Your task to perform on an android device: Search for the best rated vacuums on Target Image 0: 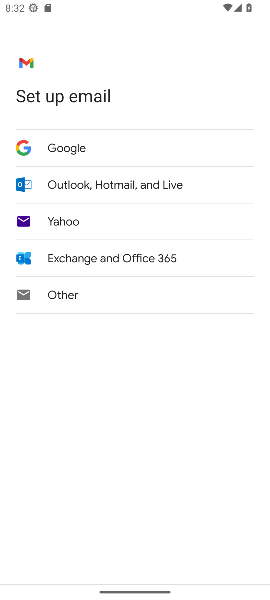
Step 0: press home button
Your task to perform on an android device: Search for the best rated vacuums on Target Image 1: 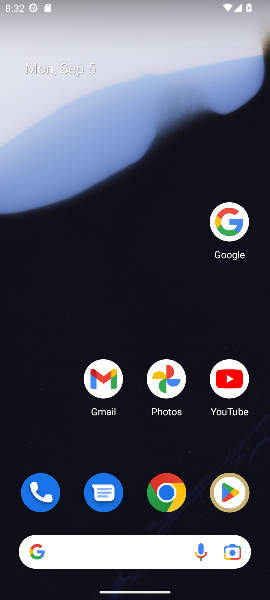
Step 1: click (229, 208)
Your task to perform on an android device: Search for the best rated vacuums on Target Image 2: 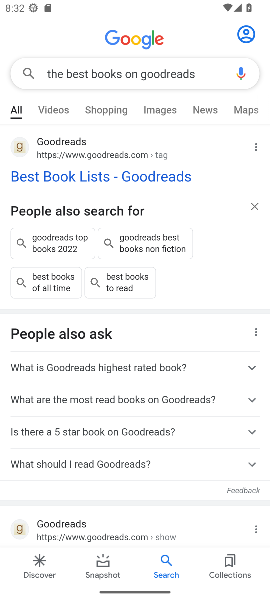
Step 2: click (163, 73)
Your task to perform on an android device: Search for the best rated vacuums on Target Image 3: 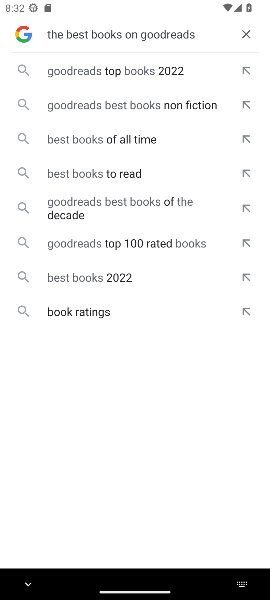
Step 3: click (248, 37)
Your task to perform on an android device: Search for the best rated vacuums on Target Image 4: 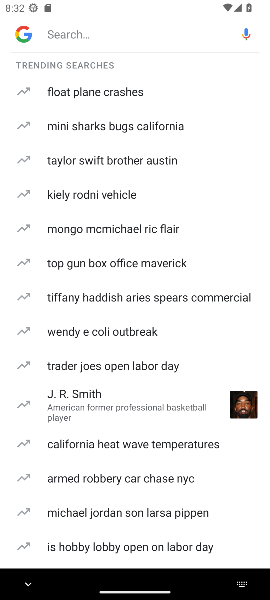
Step 4: click (118, 36)
Your task to perform on an android device: Search for the best rated vacuums on Target Image 5: 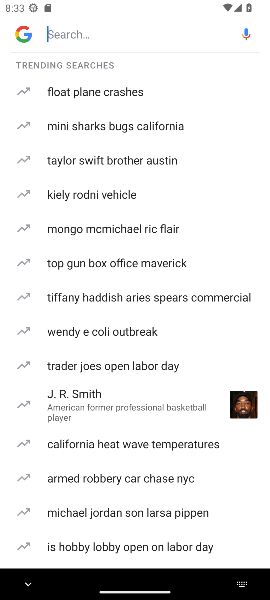
Step 5: type "the best rated vacuums on Target "
Your task to perform on an android device: Search for the best rated vacuums on Target Image 6: 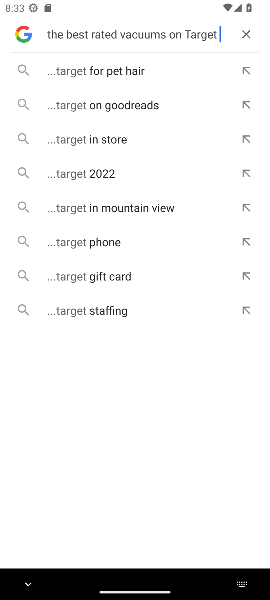
Step 6: click (248, 36)
Your task to perform on an android device: Search for the best rated vacuums on Target Image 7: 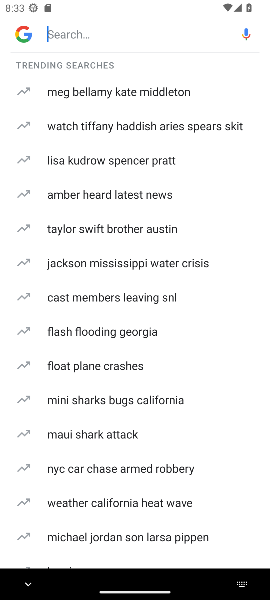
Step 7: click (101, 30)
Your task to perform on an android device: Search for the best rated vacuums on Target Image 8: 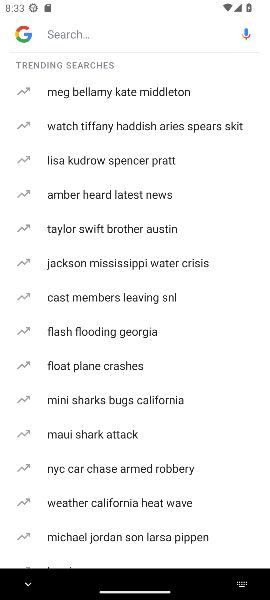
Step 8: type " the best rated vacuums on Target "
Your task to perform on an android device: Search for the best rated vacuums on Target Image 9: 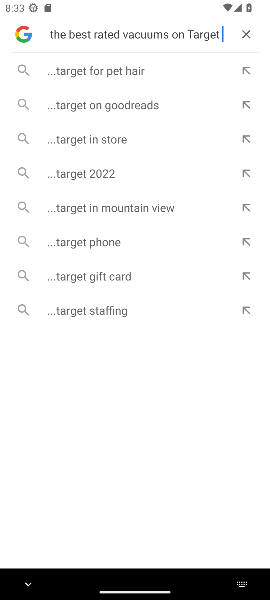
Step 9: click (114, 165)
Your task to perform on an android device: Search for the best rated vacuums on Target Image 10: 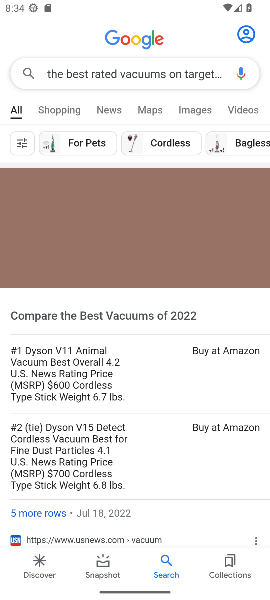
Step 10: drag from (176, 421) to (198, 235)
Your task to perform on an android device: Search for the best rated vacuums on Target Image 11: 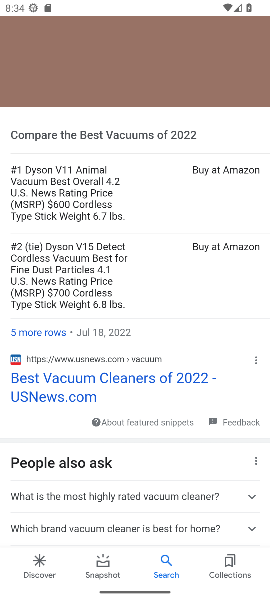
Step 11: drag from (106, 517) to (161, 200)
Your task to perform on an android device: Search for the best rated vacuums on Target Image 12: 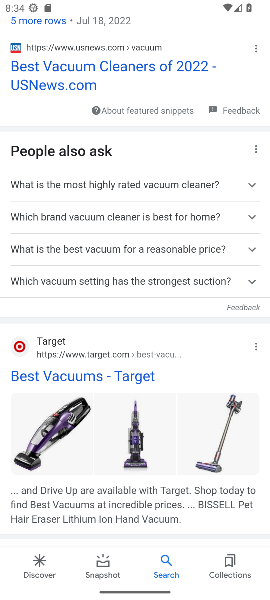
Step 12: click (154, 180)
Your task to perform on an android device: Search for the best rated vacuums on Target Image 13: 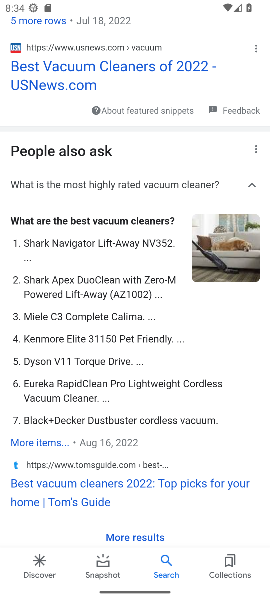
Step 13: task complete